Your task to perform on an android device: toggle javascript in the chrome app Image 0: 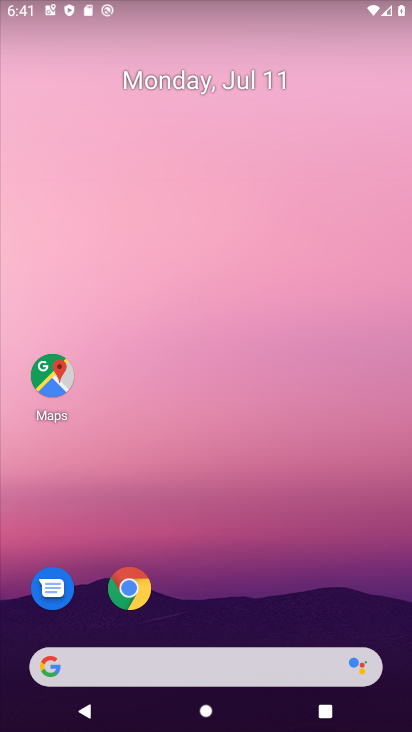
Step 0: drag from (379, 633) to (318, 209)
Your task to perform on an android device: toggle javascript in the chrome app Image 1: 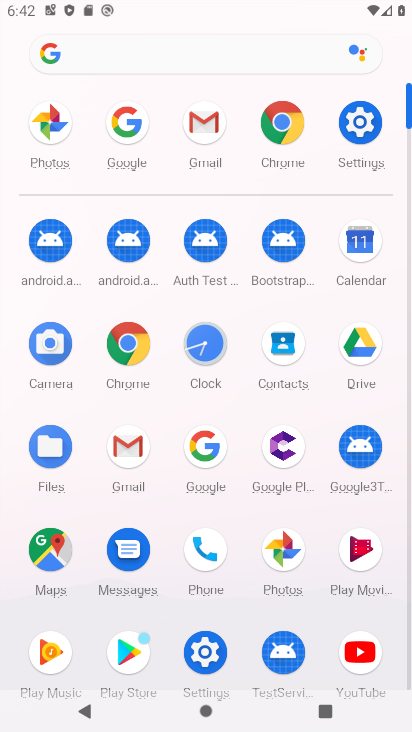
Step 1: click (118, 339)
Your task to perform on an android device: toggle javascript in the chrome app Image 2: 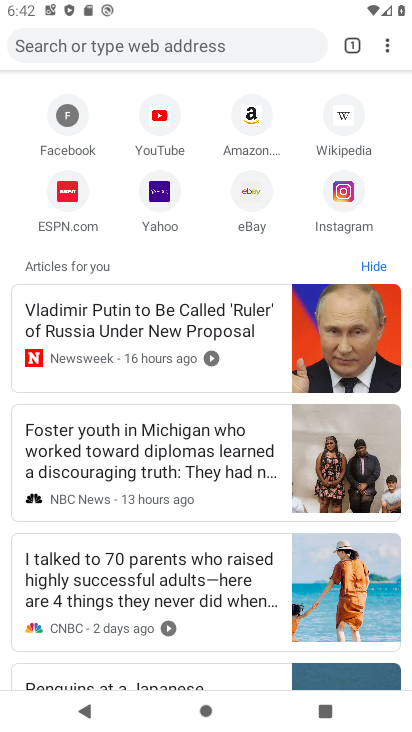
Step 2: click (384, 41)
Your task to perform on an android device: toggle javascript in the chrome app Image 3: 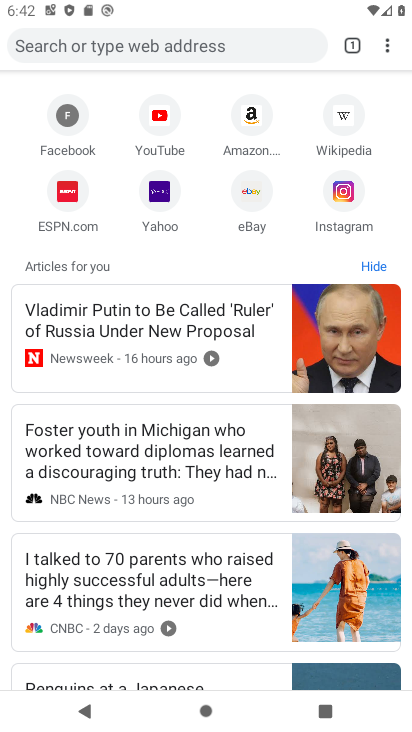
Step 3: click (383, 41)
Your task to perform on an android device: toggle javascript in the chrome app Image 4: 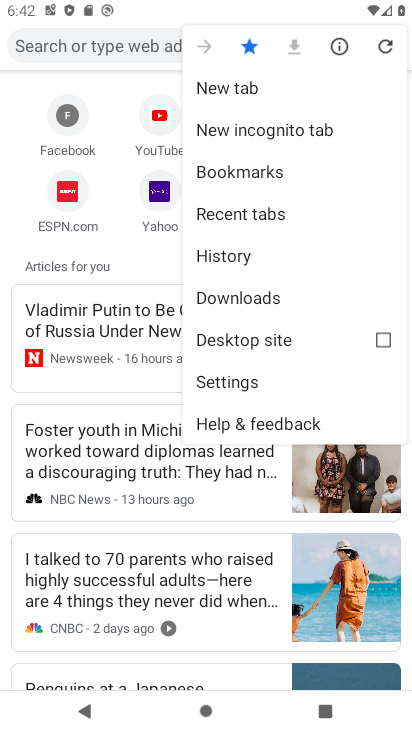
Step 4: click (247, 386)
Your task to perform on an android device: toggle javascript in the chrome app Image 5: 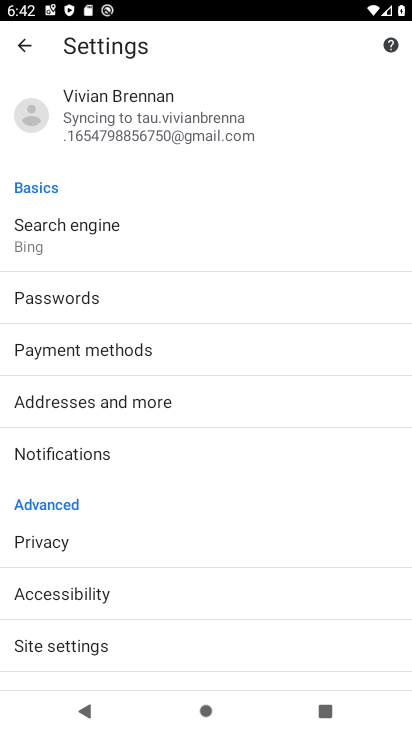
Step 5: drag from (29, 626) to (40, 212)
Your task to perform on an android device: toggle javascript in the chrome app Image 6: 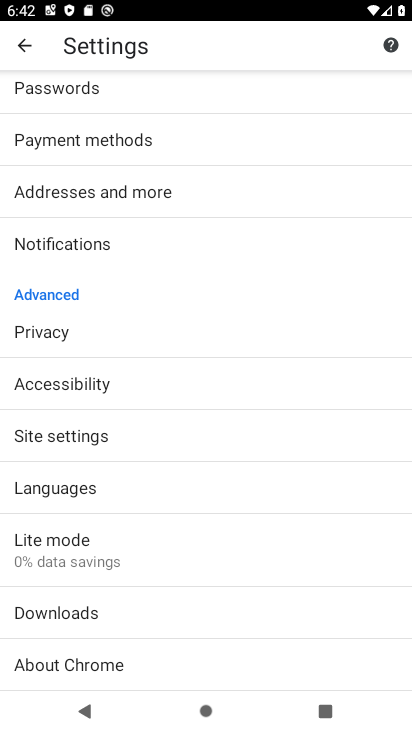
Step 6: click (98, 446)
Your task to perform on an android device: toggle javascript in the chrome app Image 7: 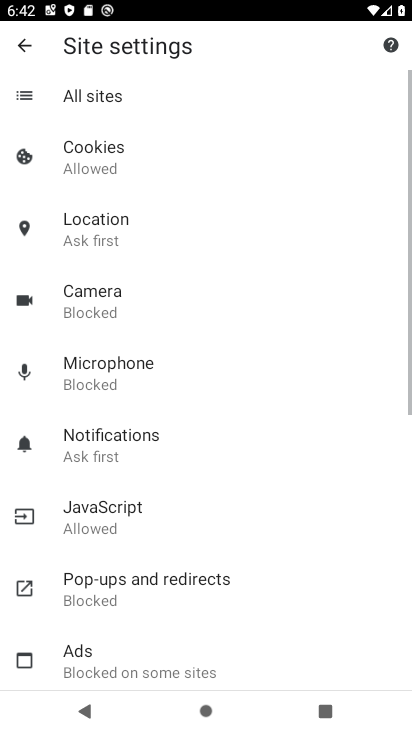
Step 7: click (99, 519)
Your task to perform on an android device: toggle javascript in the chrome app Image 8: 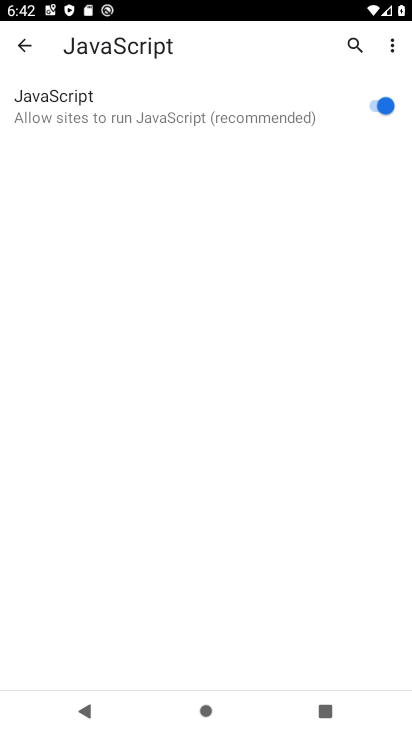
Step 8: click (368, 102)
Your task to perform on an android device: toggle javascript in the chrome app Image 9: 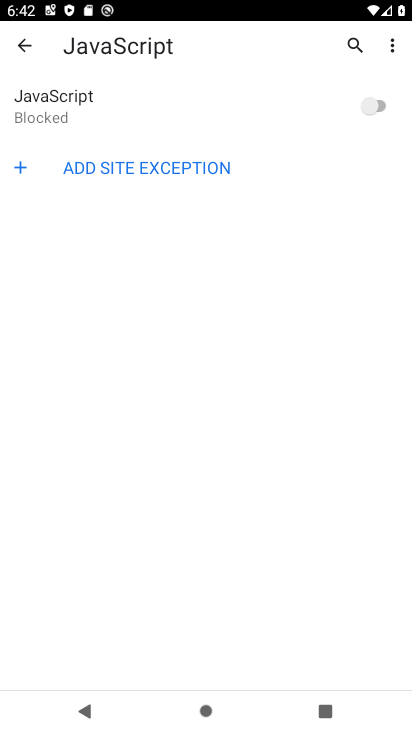
Step 9: task complete